Your task to perform on an android device: Open Maps and search for coffee Image 0: 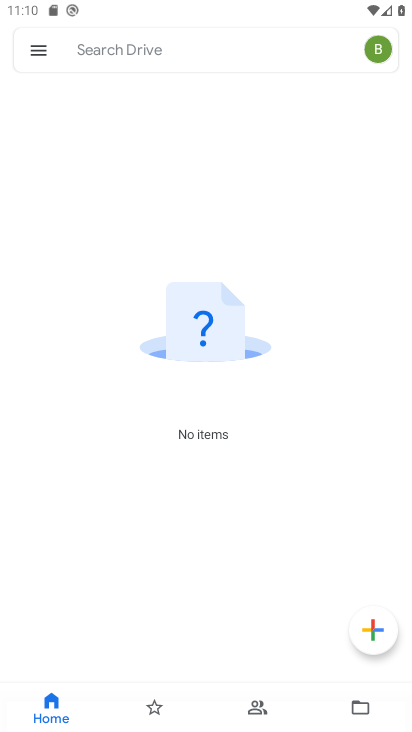
Step 0: press home button
Your task to perform on an android device: Open Maps and search for coffee Image 1: 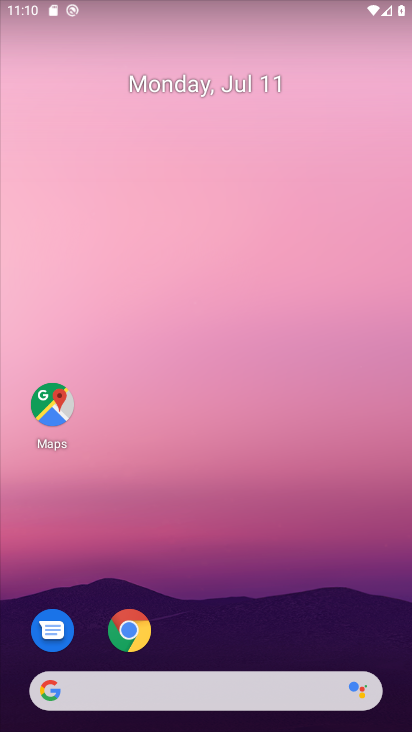
Step 1: click (55, 395)
Your task to perform on an android device: Open Maps and search for coffee Image 2: 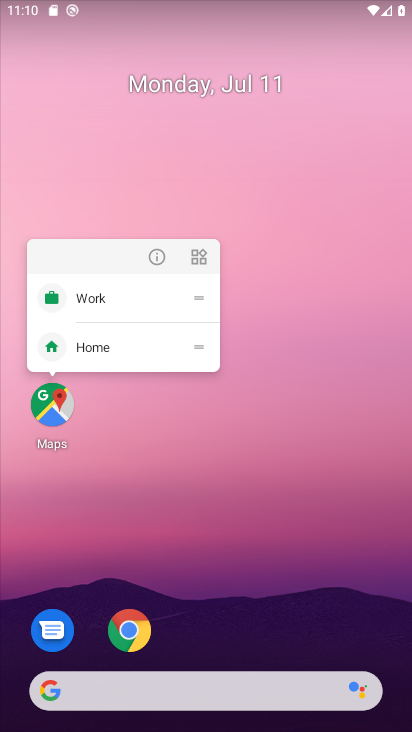
Step 2: click (60, 403)
Your task to perform on an android device: Open Maps and search for coffee Image 3: 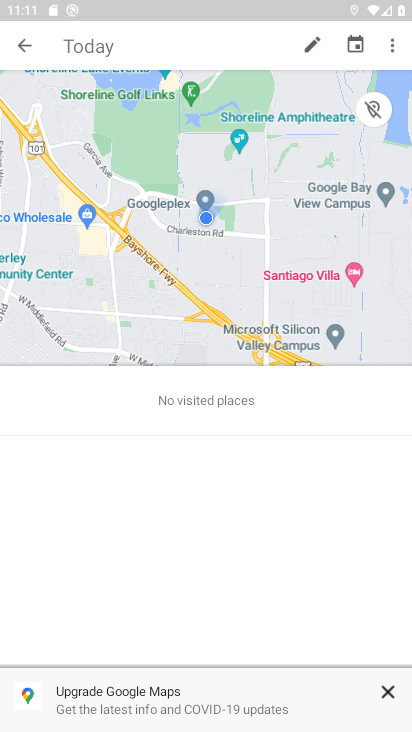
Step 3: click (33, 46)
Your task to perform on an android device: Open Maps and search for coffee Image 4: 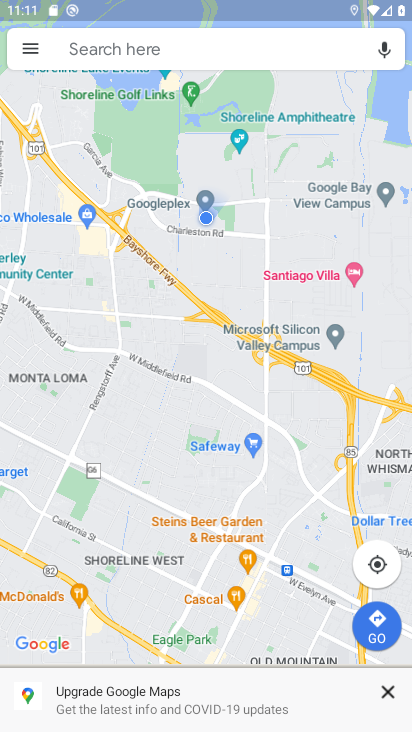
Step 4: click (218, 52)
Your task to perform on an android device: Open Maps and search for coffee Image 5: 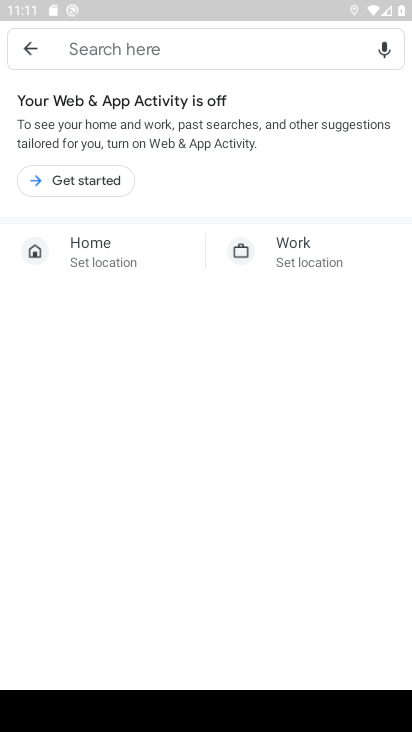
Step 5: type "coffee"
Your task to perform on an android device: Open Maps and search for coffee Image 6: 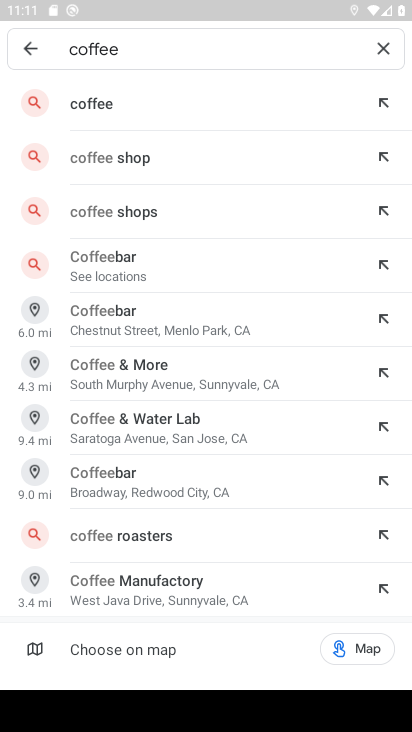
Step 6: click (147, 88)
Your task to perform on an android device: Open Maps and search for coffee Image 7: 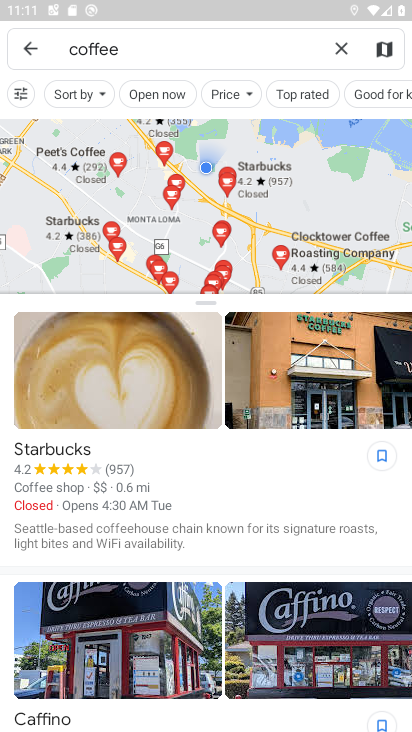
Step 7: task complete